Your task to perform on an android device: Open Google Chrome and open the bookmarks view Image 0: 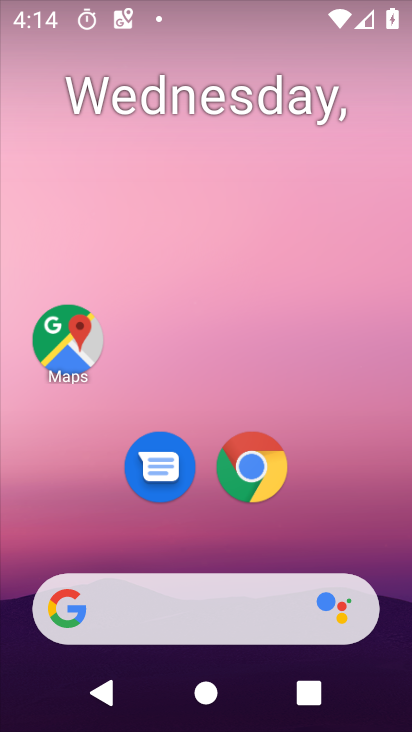
Step 0: press home button
Your task to perform on an android device: Open Google Chrome and open the bookmarks view Image 1: 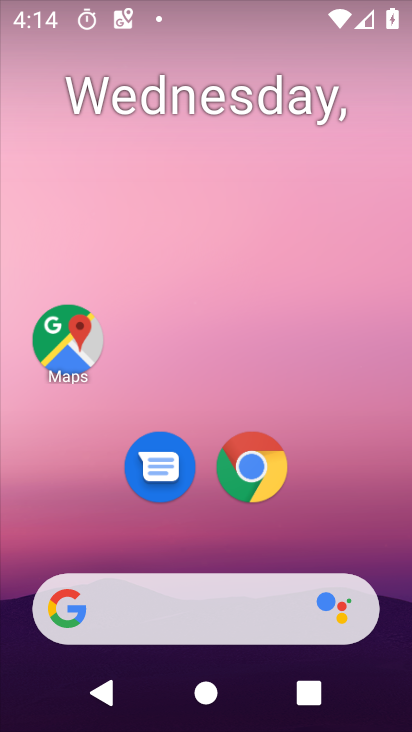
Step 1: click (245, 464)
Your task to perform on an android device: Open Google Chrome and open the bookmarks view Image 2: 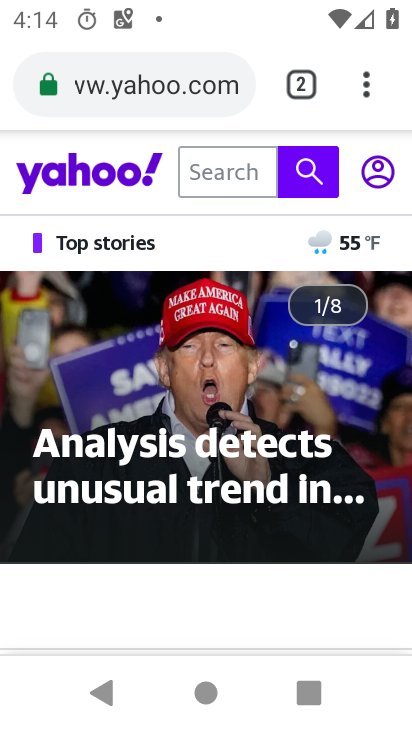
Step 2: click (368, 80)
Your task to perform on an android device: Open Google Chrome and open the bookmarks view Image 3: 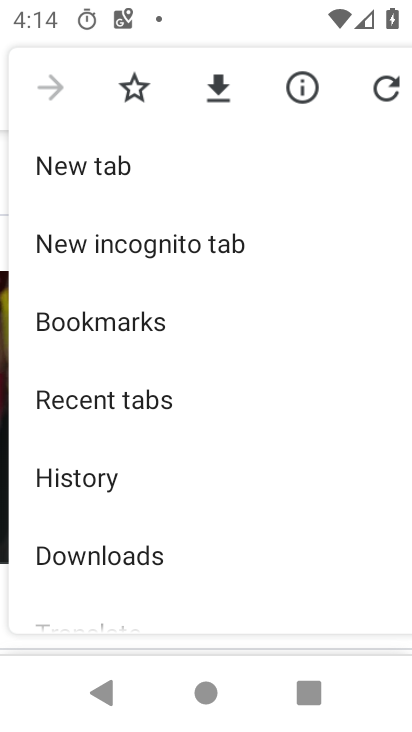
Step 3: click (181, 333)
Your task to perform on an android device: Open Google Chrome and open the bookmarks view Image 4: 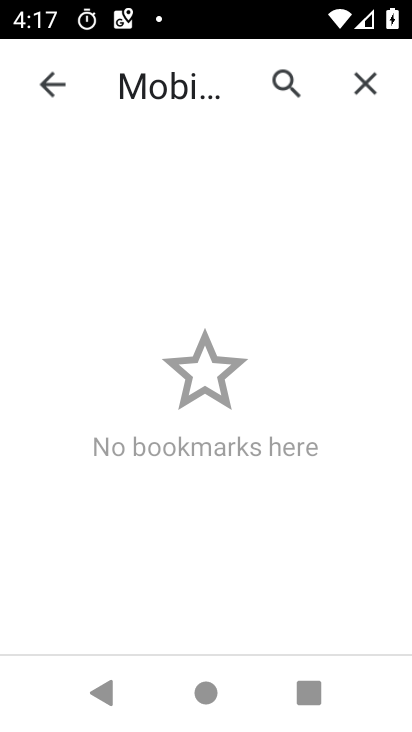
Step 4: task complete